Your task to perform on an android device: Open calendar and show me the first week of next month Image 0: 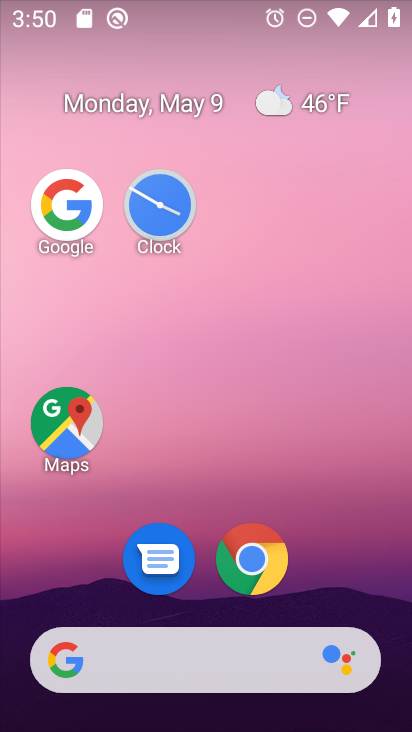
Step 0: drag from (329, 589) to (302, 159)
Your task to perform on an android device: Open calendar and show me the first week of next month Image 1: 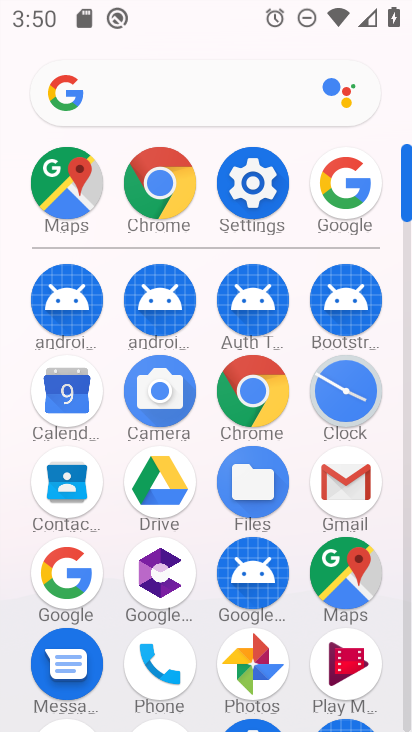
Step 1: click (63, 415)
Your task to perform on an android device: Open calendar and show me the first week of next month Image 2: 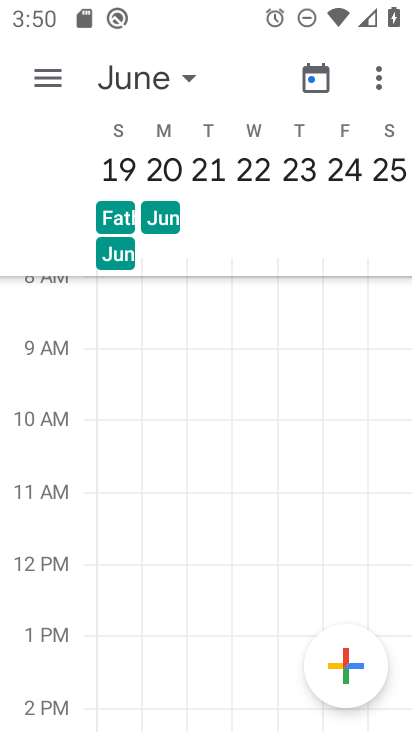
Step 2: drag from (107, 173) to (410, 147)
Your task to perform on an android device: Open calendar and show me the first week of next month Image 3: 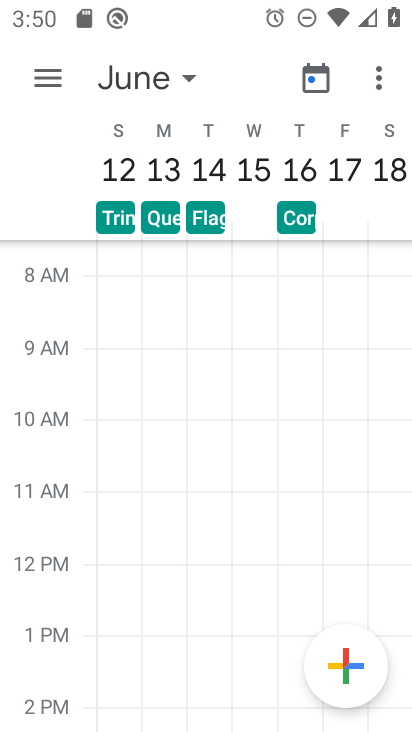
Step 3: drag from (113, 174) to (410, 176)
Your task to perform on an android device: Open calendar and show me the first week of next month Image 4: 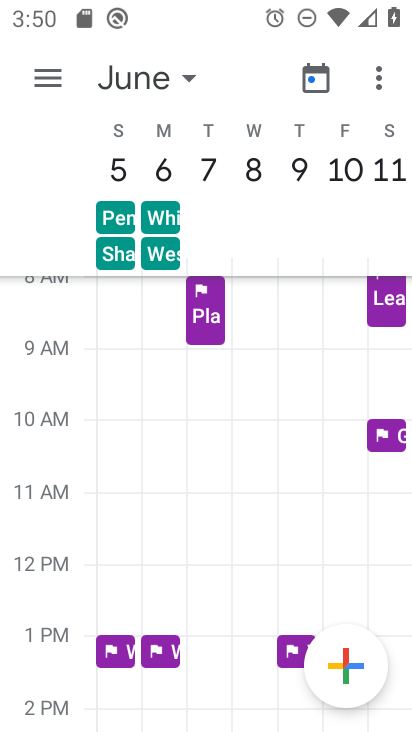
Step 4: drag from (125, 168) to (376, 163)
Your task to perform on an android device: Open calendar and show me the first week of next month Image 5: 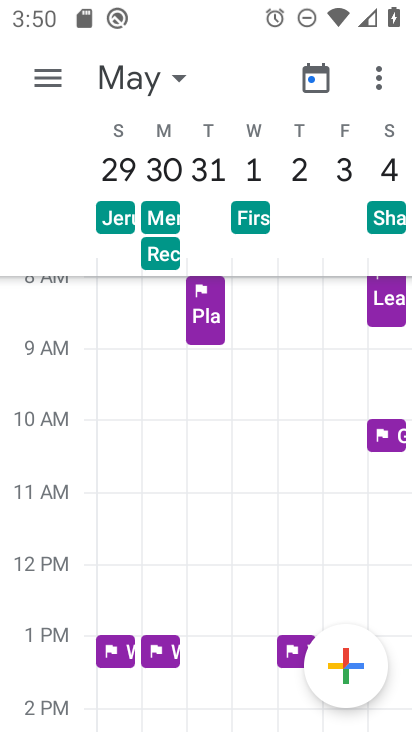
Step 5: click (257, 165)
Your task to perform on an android device: Open calendar and show me the first week of next month Image 6: 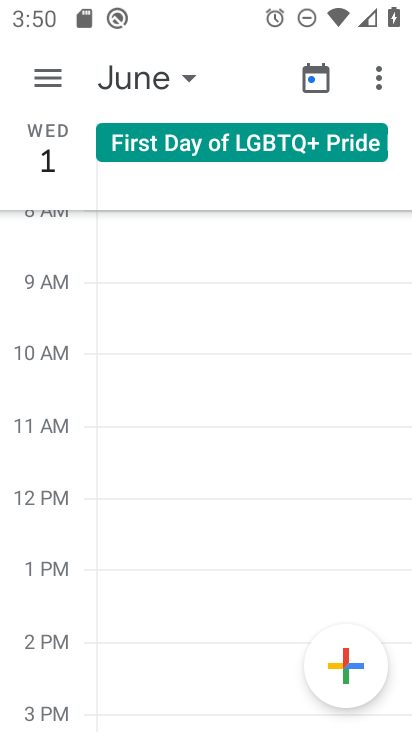
Step 6: task complete